Your task to perform on an android device: Show me productivity apps on the Play Store Image 0: 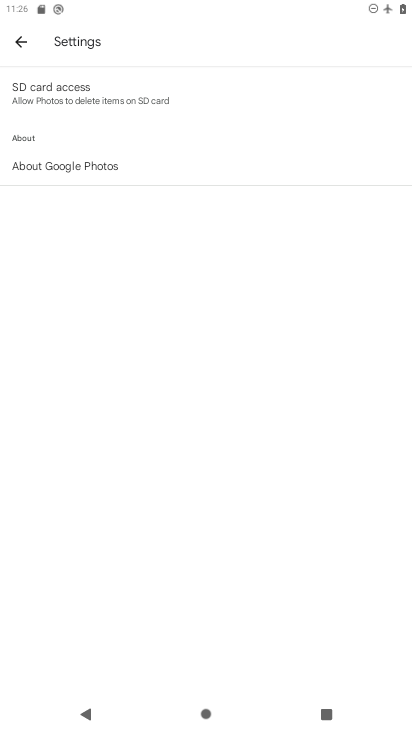
Step 0: press home button
Your task to perform on an android device: Show me productivity apps on the Play Store Image 1: 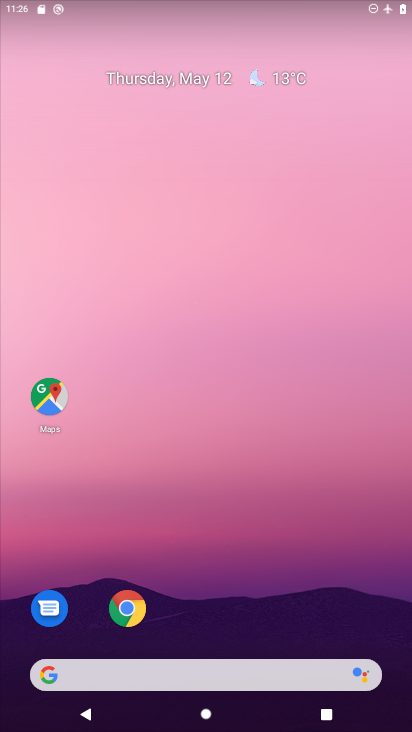
Step 1: drag from (252, 614) to (259, 140)
Your task to perform on an android device: Show me productivity apps on the Play Store Image 2: 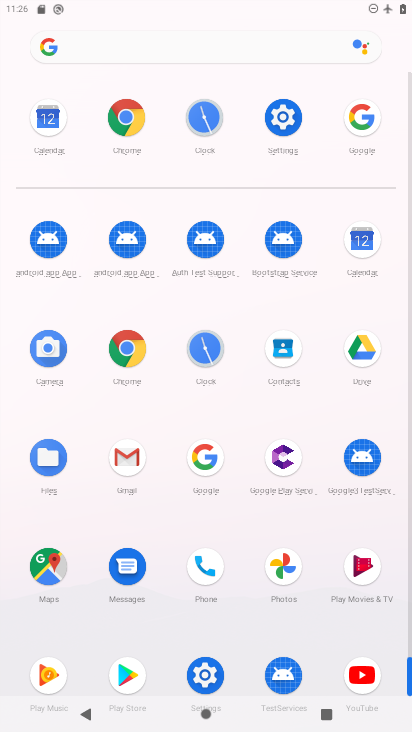
Step 2: click (131, 671)
Your task to perform on an android device: Show me productivity apps on the Play Store Image 3: 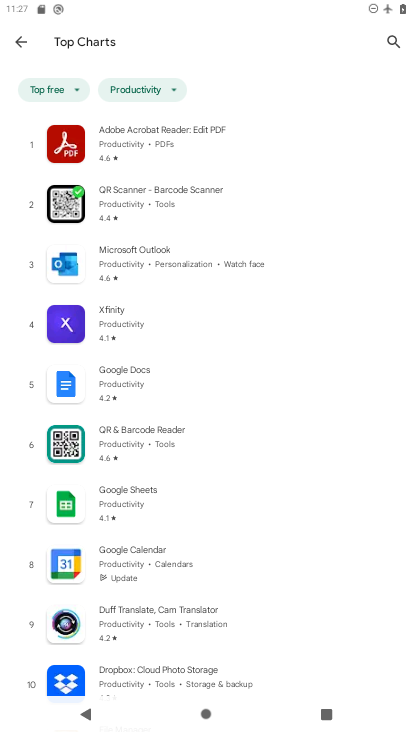
Step 3: press back button
Your task to perform on an android device: Show me productivity apps on the Play Store Image 4: 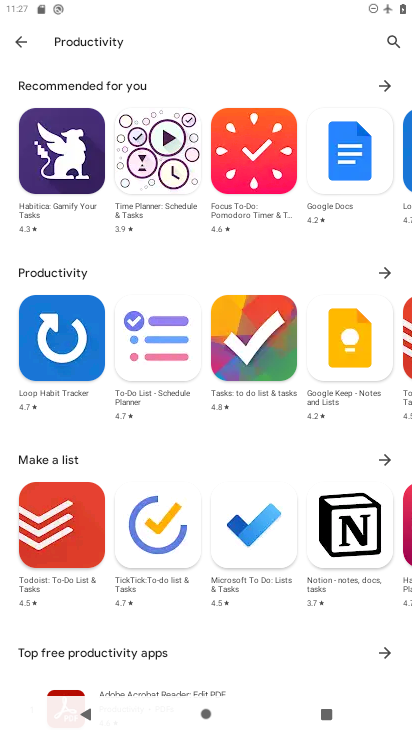
Step 4: click (357, 269)
Your task to perform on an android device: Show me productivity apps on the Play Store Image 5: 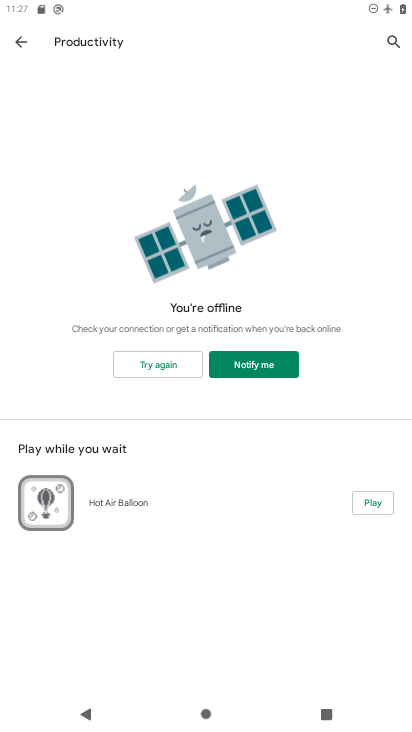
Step 5: task complete